Your task to perform on an android device: When is my next meeting? Image 0: 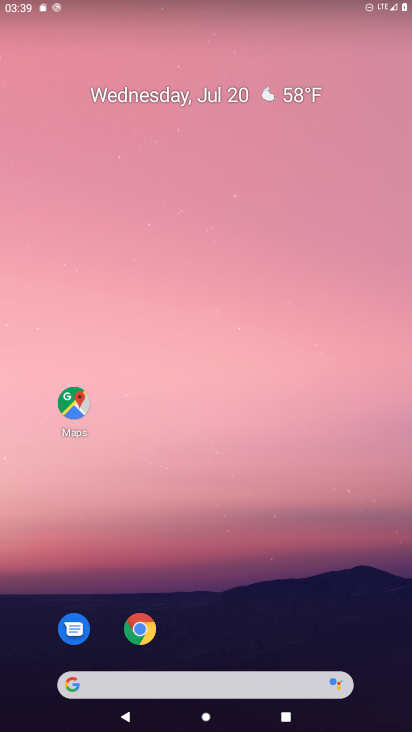
Step 0: drag from (251, 683) to (258, 7)
Your task to perform on an android device: When is my next meeting? Image 1: 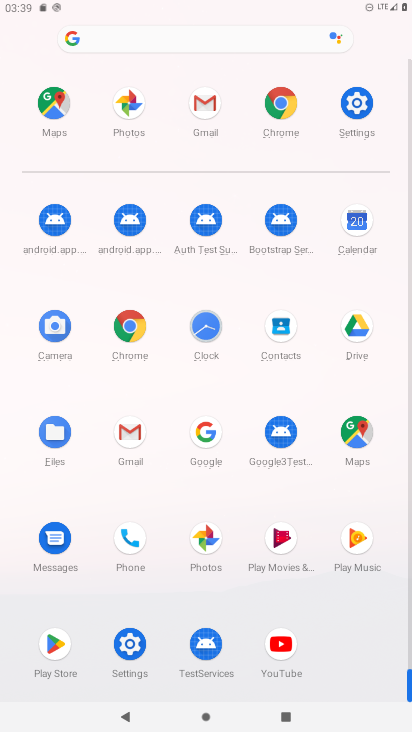
Step 1: click (369, 212)
Your task to perform on an android device: When is my next meeting? Image 2: 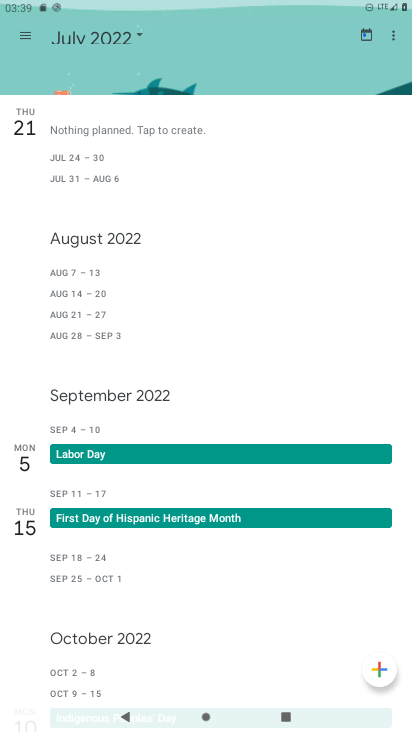
Step 2: click (122, 35)
Your task to perform on an android device: When is my next meeting? Image 3: 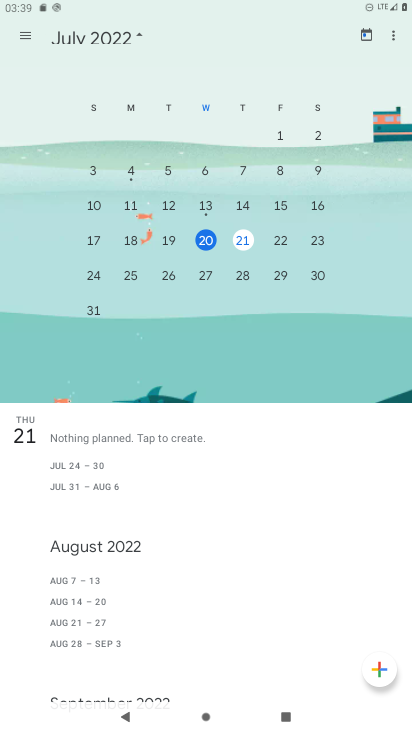
Step 3: click (154, 28)
Your task to perform on an android device: When is my next meeting? Image 4: 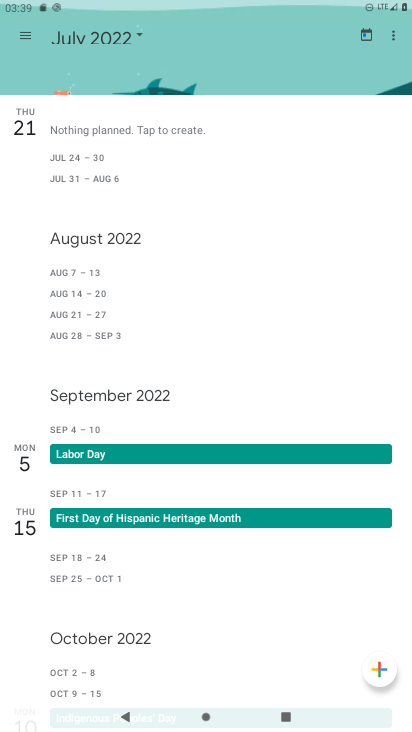
Step 4: click (148, 44)
Your task to perform on an android device: When is my next meeting? Image 5: 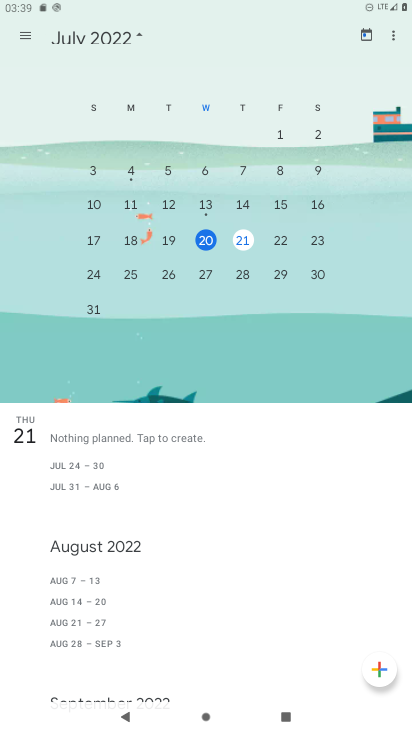
Step 5: click (198, 241)
Your task to perform on an android device: When is my next meeting? Image 6: 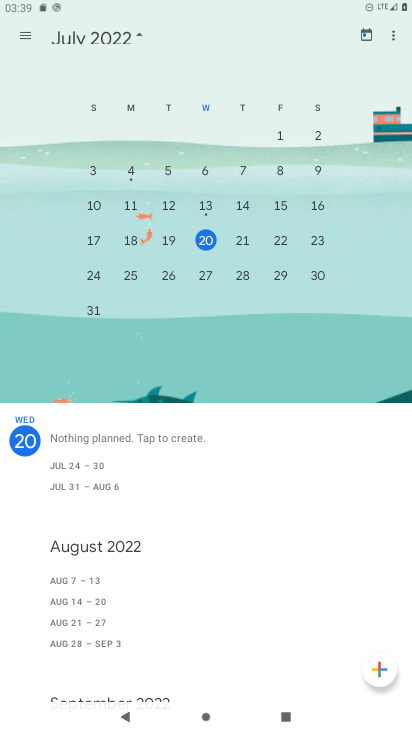
Step 6: click (49, 37)
Your task to perform on an android device: When is my next meeting? Image 7: 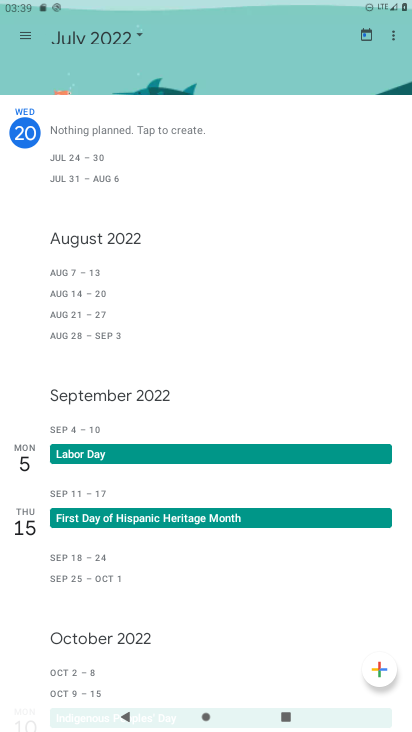
Step 7: task complete